Your task to perform on an android device: turn off priority inbox in the gmail app Image 0: 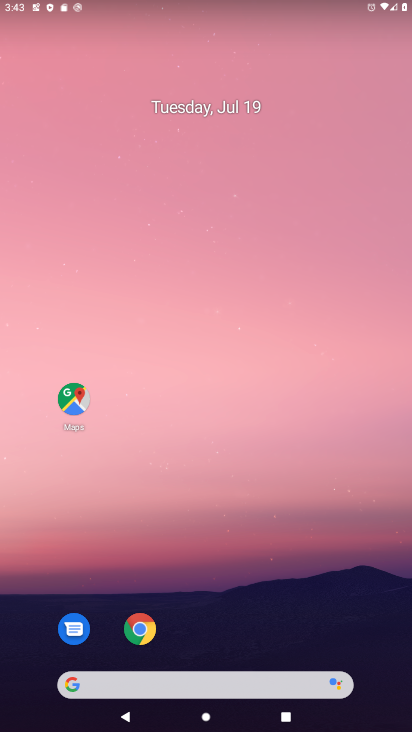
Step 0: drag from (204, 673) to (196, 230)
Your task to perform on an android device: turn off priority inbox in the gmail app Image 1: 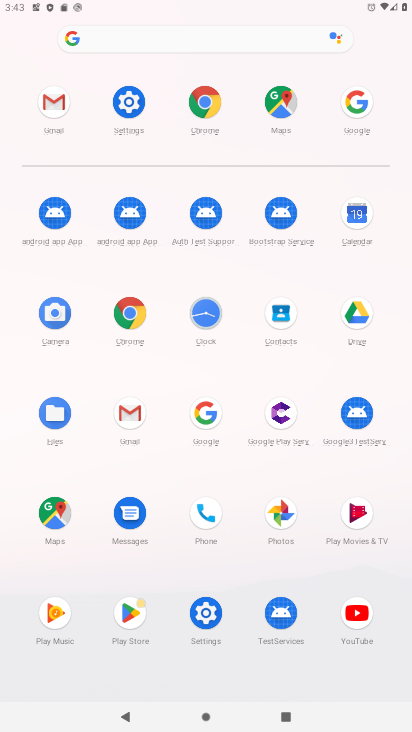
Step 1: click (56, 109)
Your task to perform on an android device: turn off priority inbox in the gmail app Image 2: 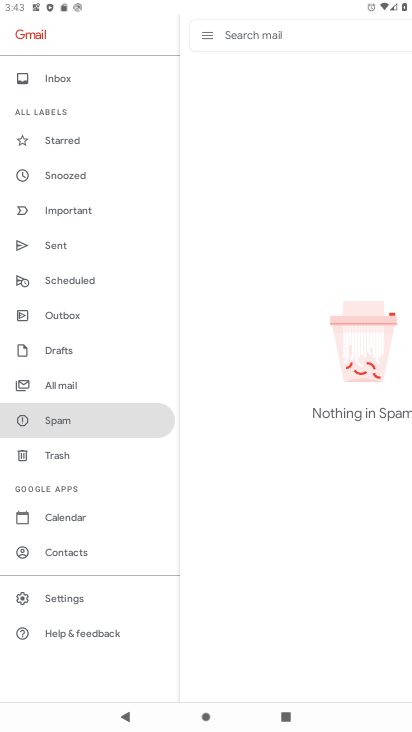
Step 2: click (68, 601)
Your task to perform on an android device: turn off priority inbox in the gmail app Image 3: 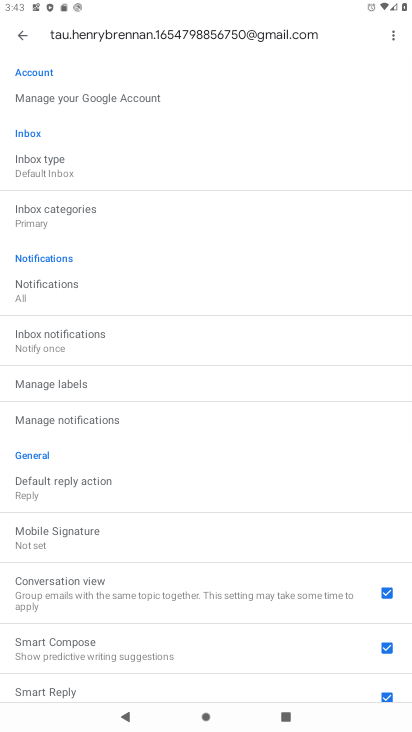
Step 3: click (54, 160)
Your task to perform on an android device: turn off priority inbox in the gmail app Image 4: 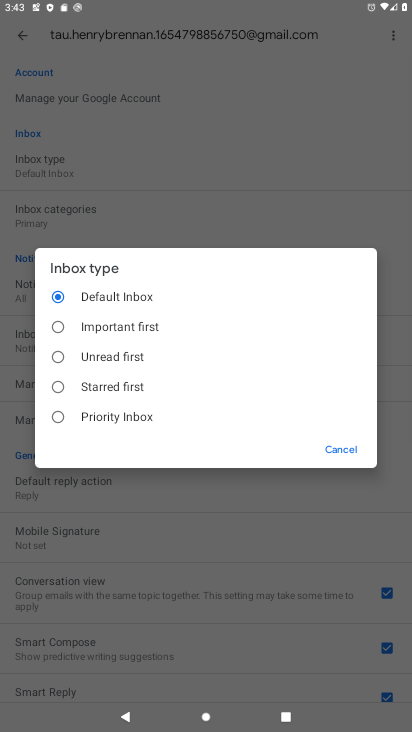
Step 4: click (118, 410)
Your task to perform on an android device: turn off priority inbox in the gmail app Image 5: 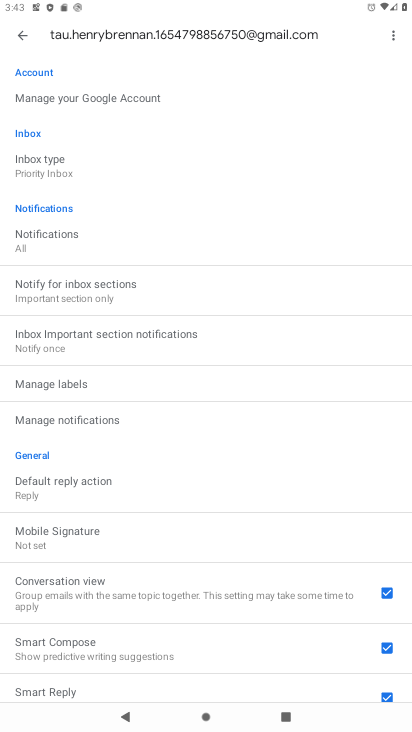
Step 5: click (39, 172)
Your task to perform on an android device: turn off priority inbox in the gmail app Image 6: 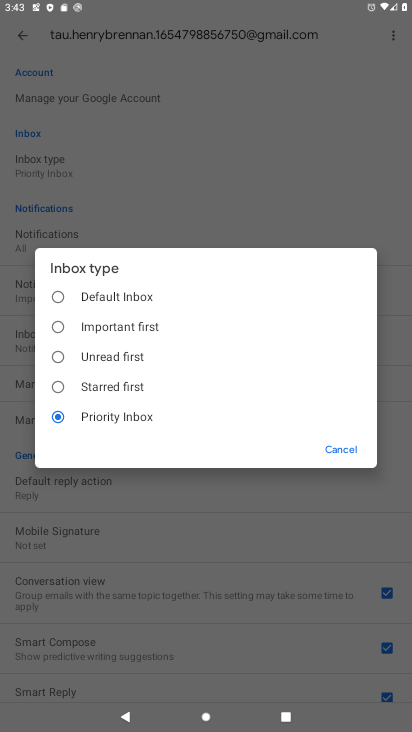
Step 6: click (126, 297)
Your task to perform on an android device: turn off priority inbox in the gmail app Image 7: 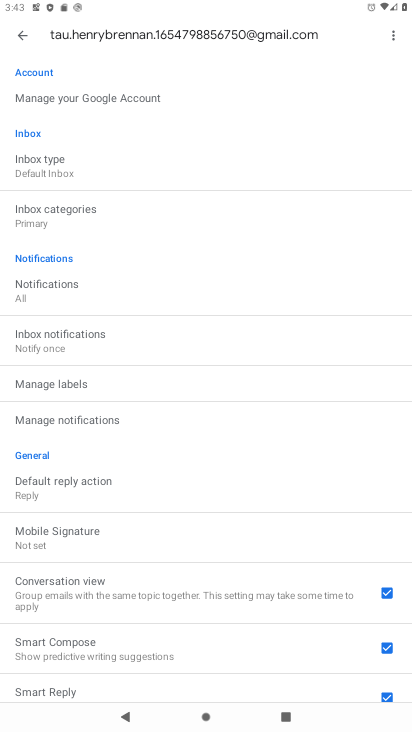
Step 7: task complete